Your task to perform on an android device: open chrome privacy settings Image 0: 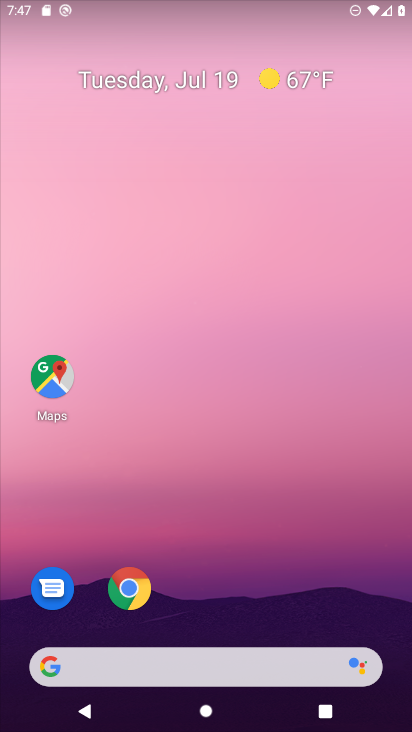
Step 0: drag from (385, 585) to (391, 145)
Your task to perform on an android device: open chrome privacy settings Image 1: 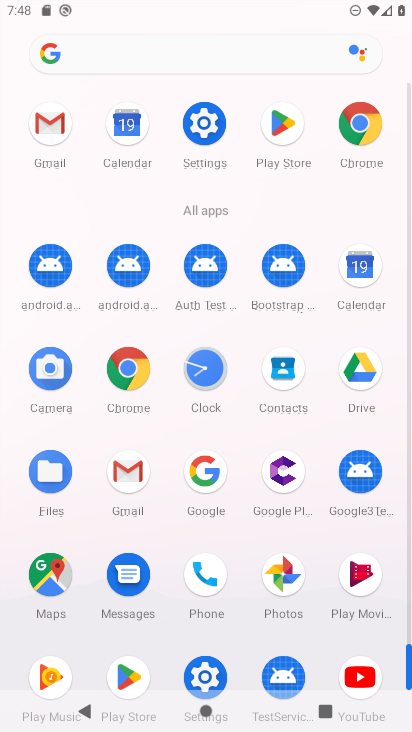
Step 1: click (135, 364)
Your task to perform on an android device: open chrome privacy settings Image 2: 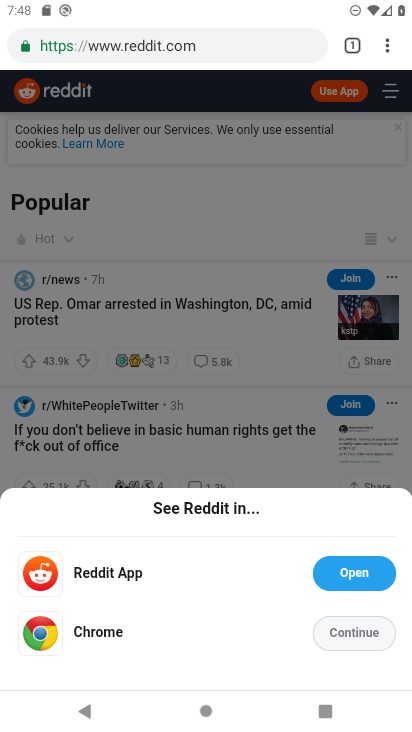
Step 2: click (388, 45)
Your task to perform on an android device: open chrome privacy settings Image 3: 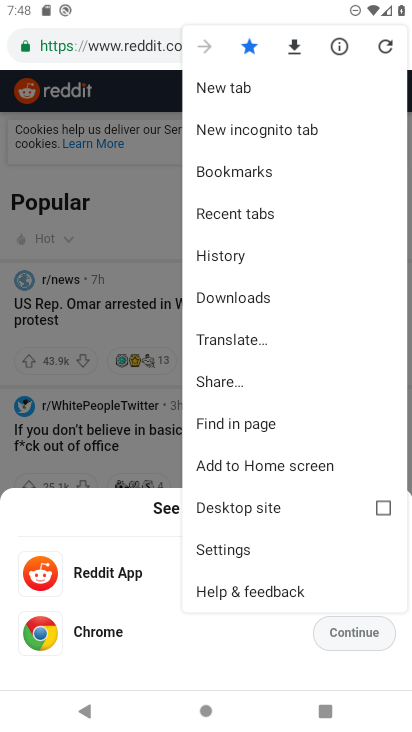
Step 3: click (250, 552)
Your task to perform on an android device: open chrome privacy settings Image 4: 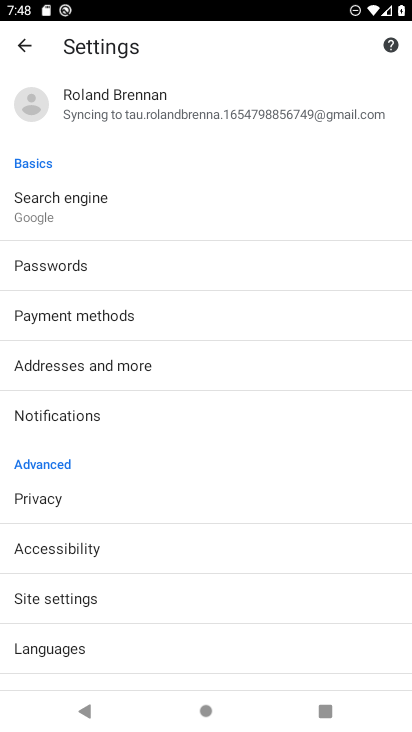
Step 4: drag from (269, 597) to (282, 541)
Your task to perform on an android device: open chrome privacy settings Image 5: 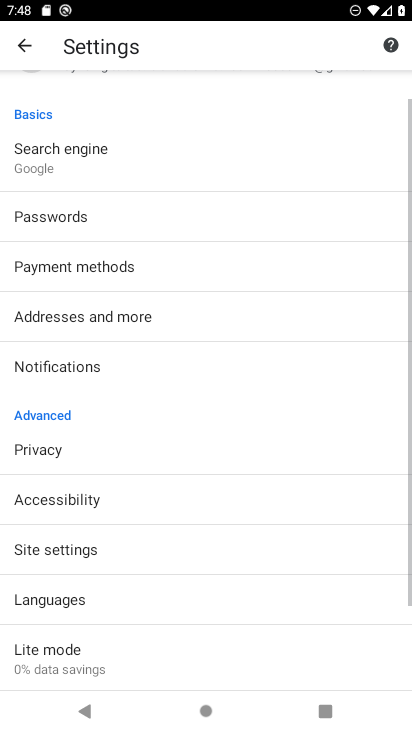
Step 5: drag from (277, 614) to (277, 548)
Your task to perform on an android device: open chrome privacy settings Image 6: 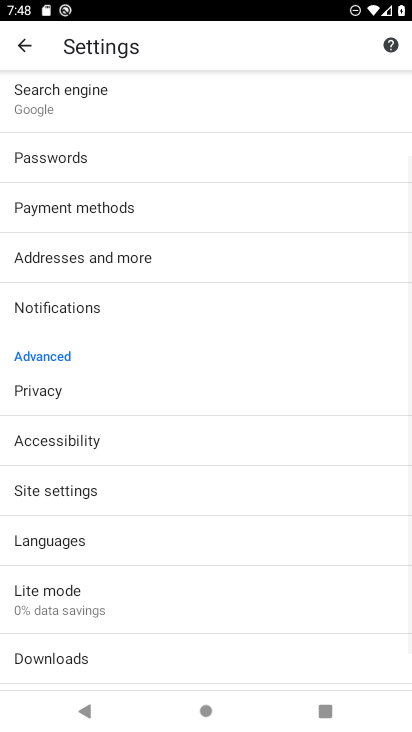
Step 6: drag from (279, 613) to (293, 522)
Your task to perform on an android device: open chrome privacy settings Image 7: 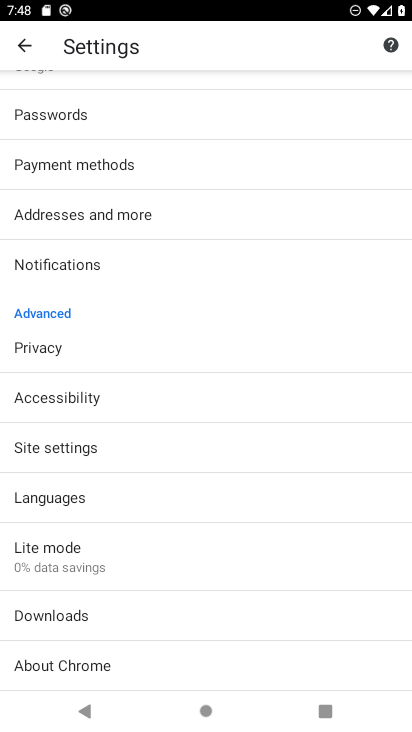
Step 7: drag from (292, 599) to (299, 463)
Your task to perform on an android device: open chrome privacy settings Image 8: 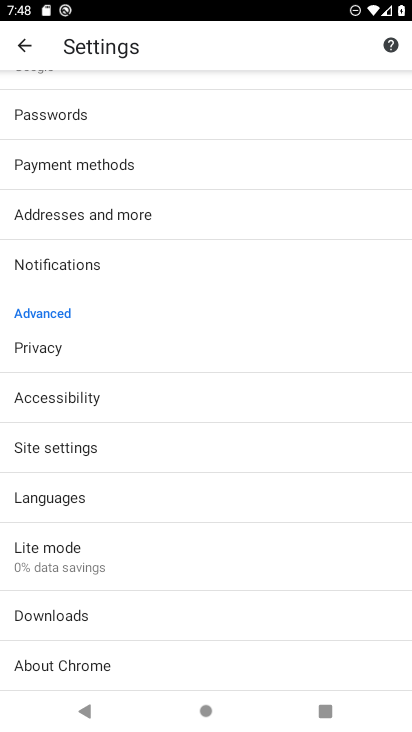
Step 8: click (269, 347)
Your task to perform on an android device: open chrome privacy settings Image 9: 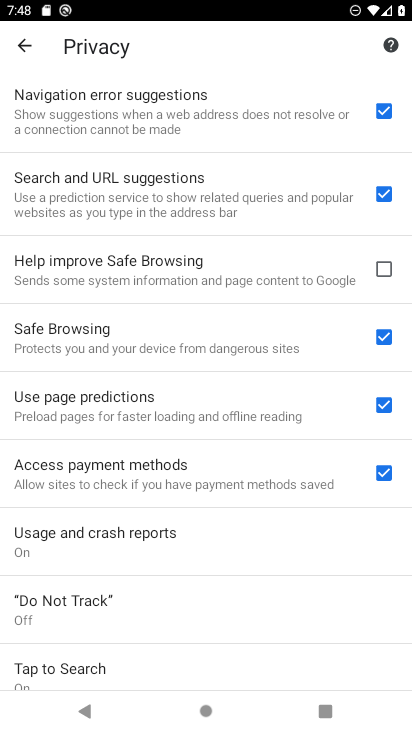
Step 9: task complete